Your task to perform on an android device: check out phone information Image 0: 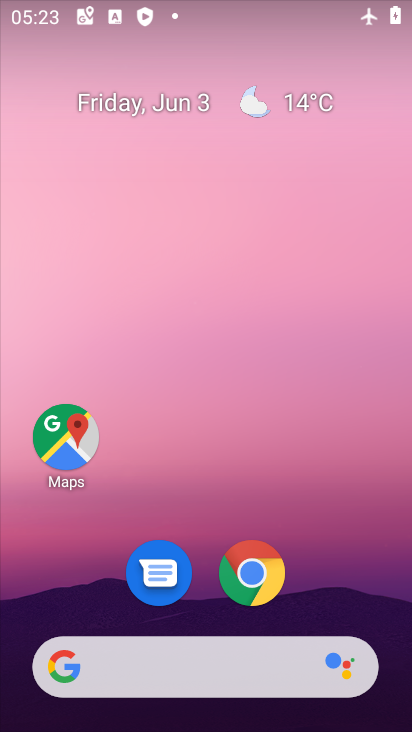
Step 0: drag from (393, 536) to (331, 52)
Your task to perform on an android device: check out phone information Image 1: 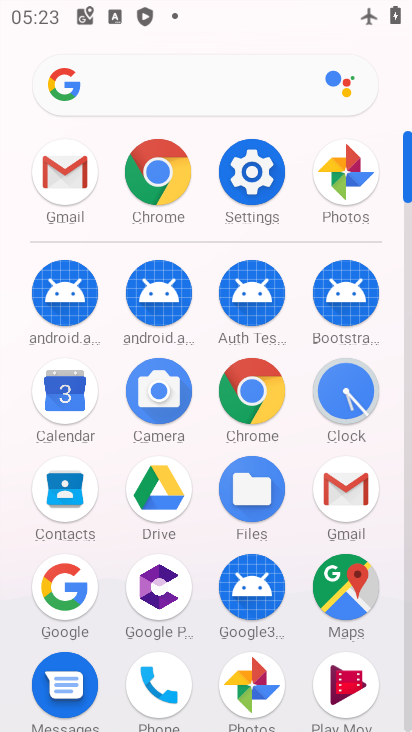
Step 1: click (271, 161)
Your task to perform on an android device: check out phone information Image 2: 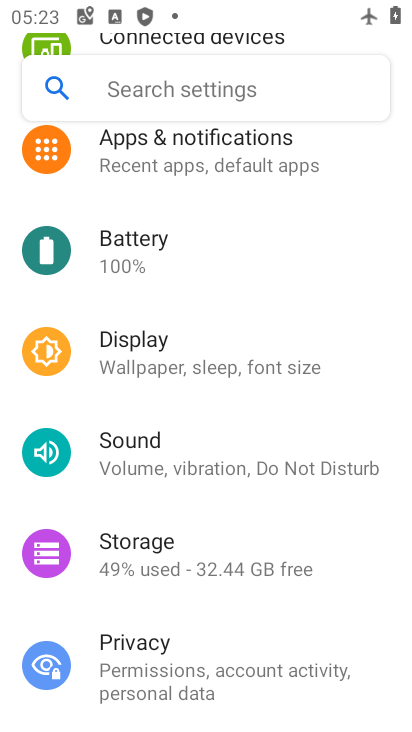
Step 2: drag from (326, 553) to (288, 155)
Your task to perform on an android device: check out phone information Image 3: 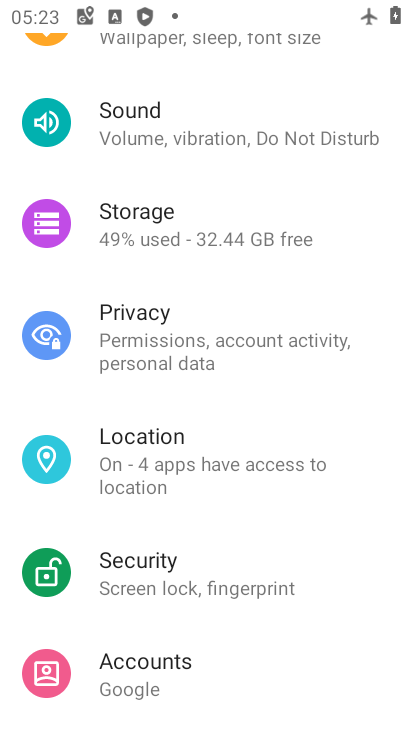
Step 3: drag from (249, 653) to (340, 19)
Your task to perform on an android device: check out phone information Image 4: 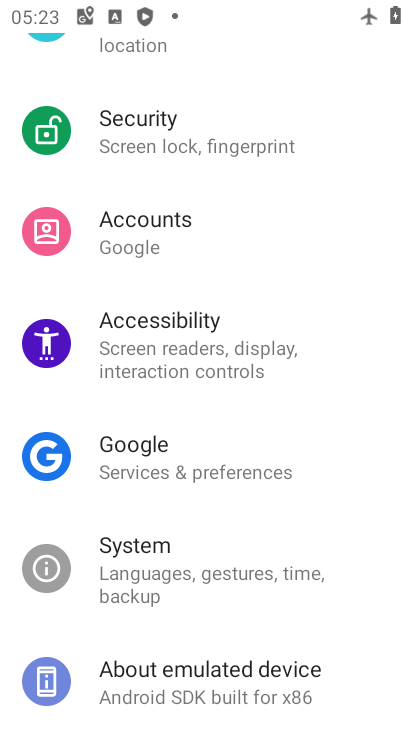
Step 4: click (192, 677)
Your task to perform on an android device: check out phone information Image 5: 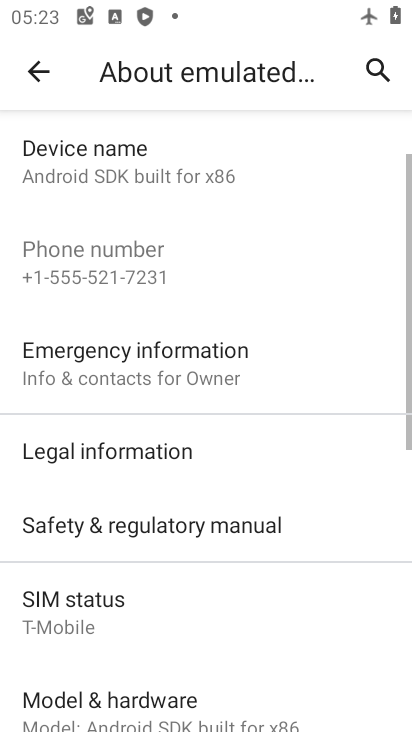
Step 5: task complete